Your task to perform on an android device: snooze an email in the gmail app Image 0: 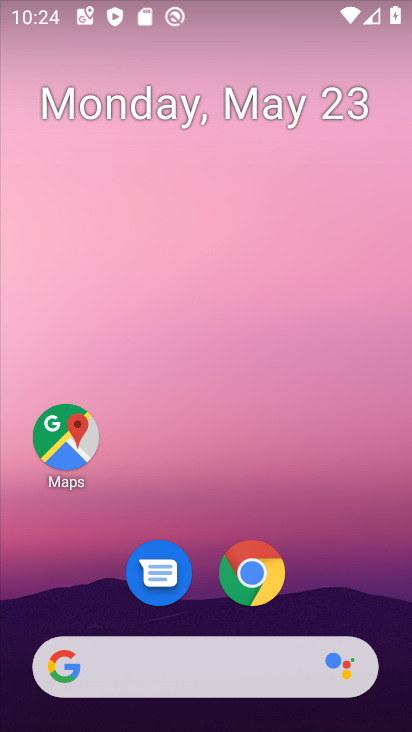
Step 0: drag from (229, 681) to (213, 209)
Your task to perform on an android device: snooze an email in the gmail app Image 1: 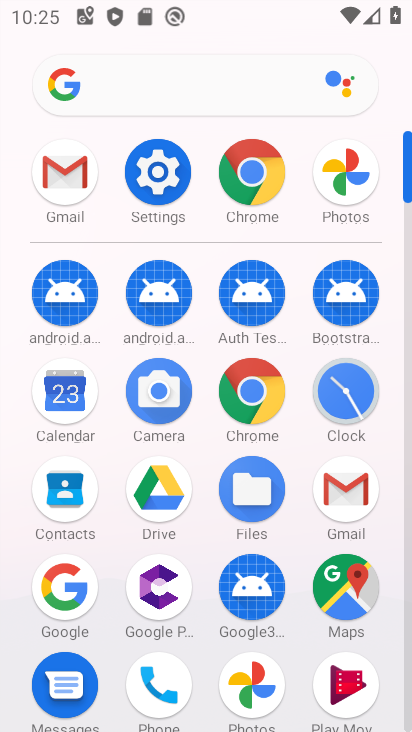
Step 1: click (350, 485)
Your task to perform on an android device: snooze an email in the gmail app Image 2: 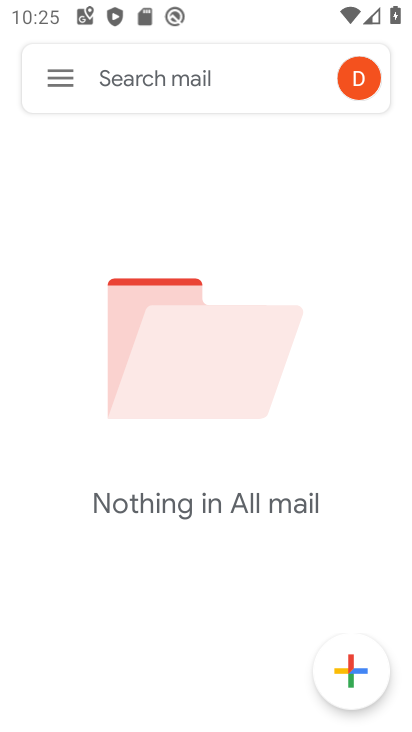
Step 2: click (66, 85)
Your task to perform on an android device: snooze an email in the gmail app Image 3: 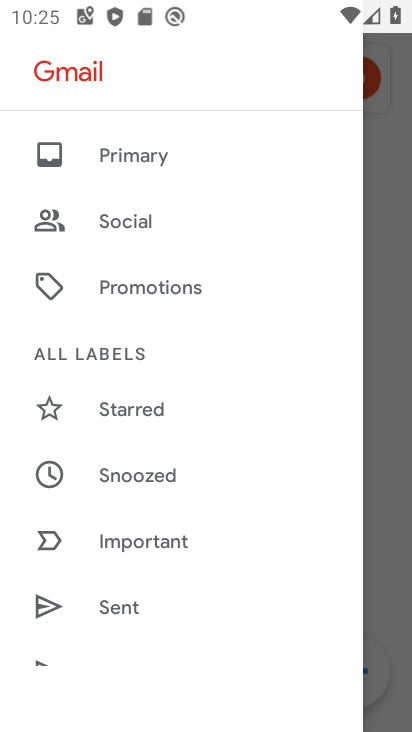
Step 3: drag from (169, 545) to (288, 2)
Your task to perform on an android device: snooze an email in the gmail app Image 4: 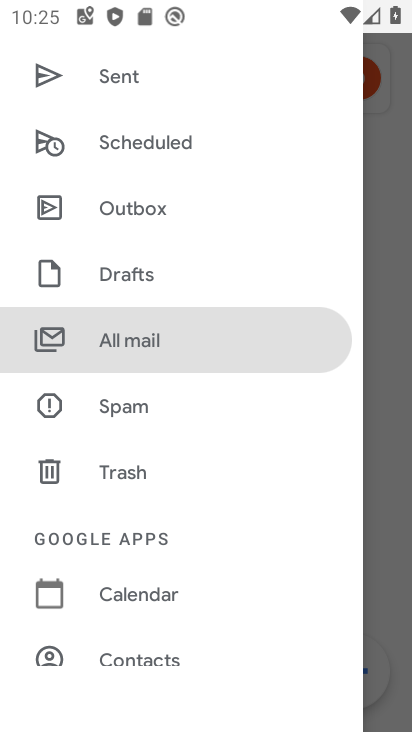
Step 4: click (179, 347)
Your task to perform on an android device: snooze an email in the gmail app Image 5: 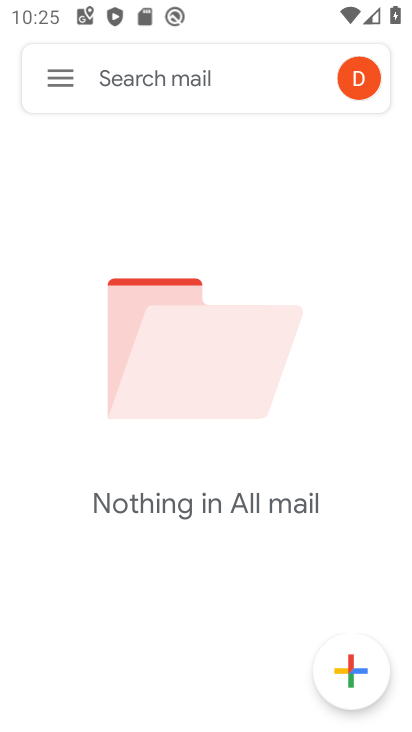
Step 5: task complete